Your task to perform on an android device: Show me productivity apps on the Play Store Image 0: 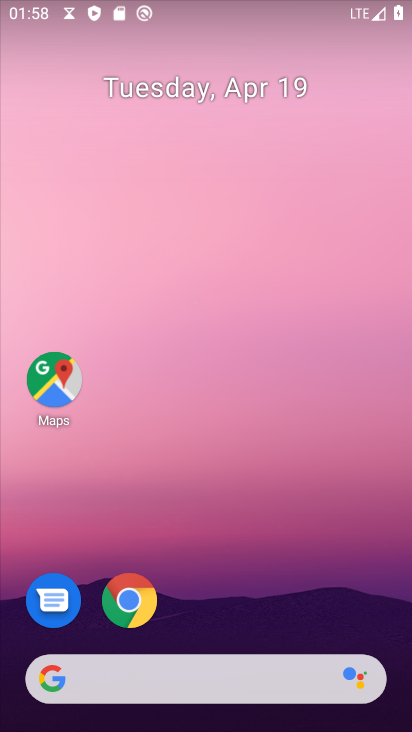
Step 0: drag from (223, 568) to (141, 17)
Your task to perform on an android device: Show me productivity apps on the Play Store Image 1: 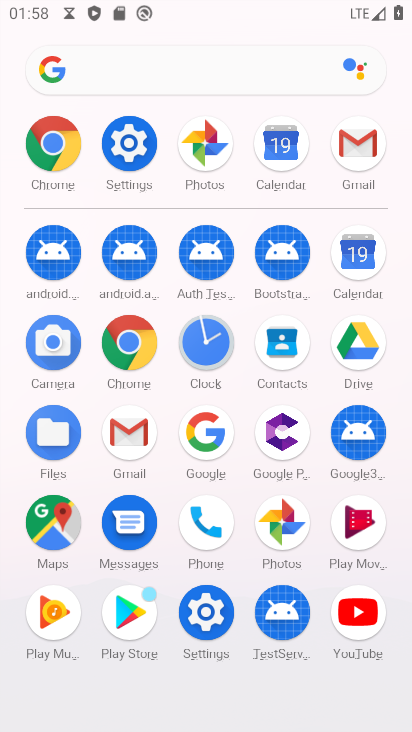
Step 1: click (124, 627)
Your task to perform on an android device: Show me productivity apps on the Play Store Image 2: 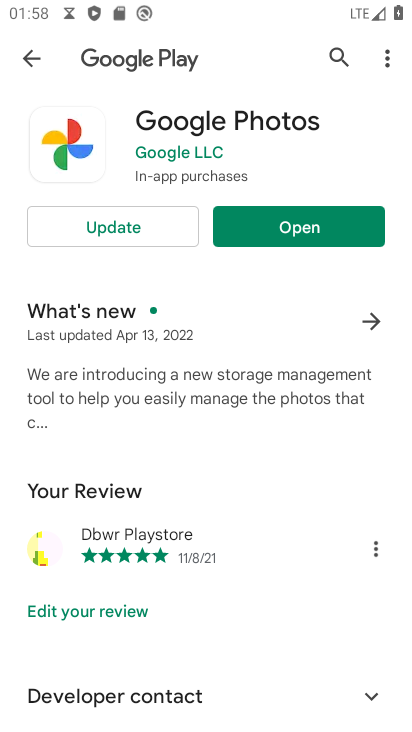
Step 2: click (16, 43)
Your task to perform on an android device: Show me productivity apps on the Play Store Image 3: 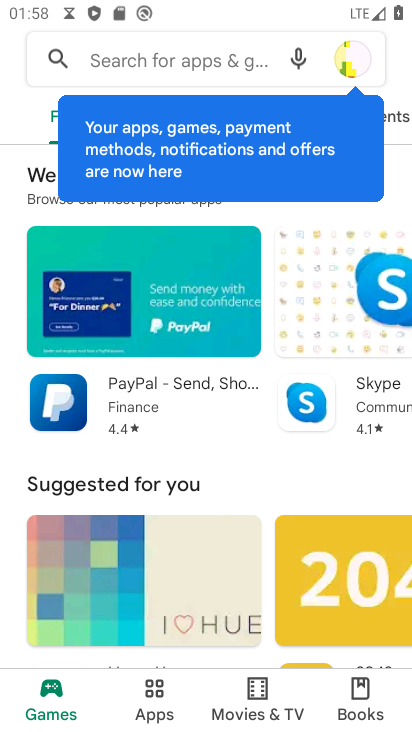
Step 3: drag from (410, 106) to (136, 85)
Your task to perform on an android device: Show me productivity apps on the Play Store Image 4: 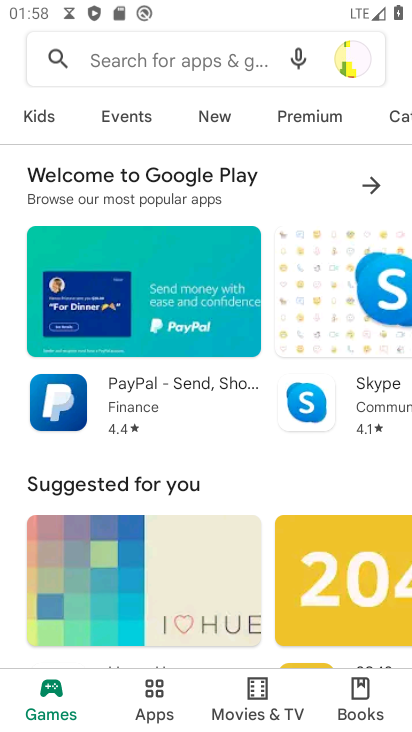
Step 4: drag from (344, 110) to (209, 101)
Your task to perform on an android device: Show me productivity apps on the Play Store Image 5: 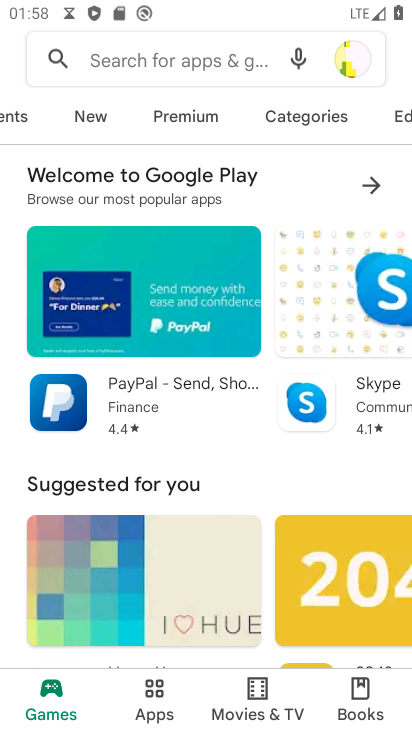
Step 5: click (284, 114)
Your task to perform on an android device: Show me productivity apps on the Play Store Image 6: 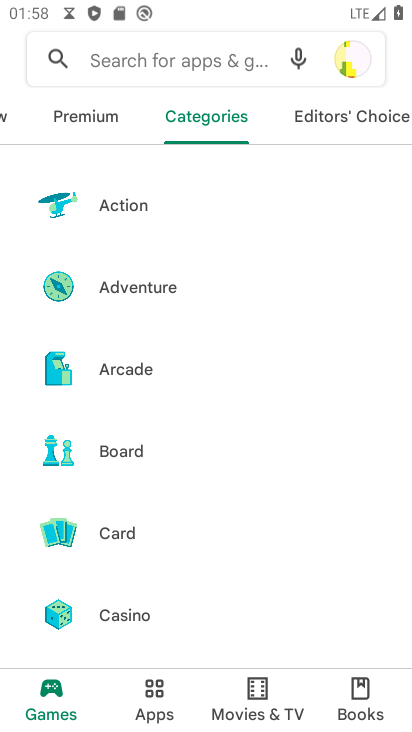
Step 6: drag from (212, 534) to (120, 17)
Your task to perform on an android device: Show me productivity apps on the Play Store Image 7: 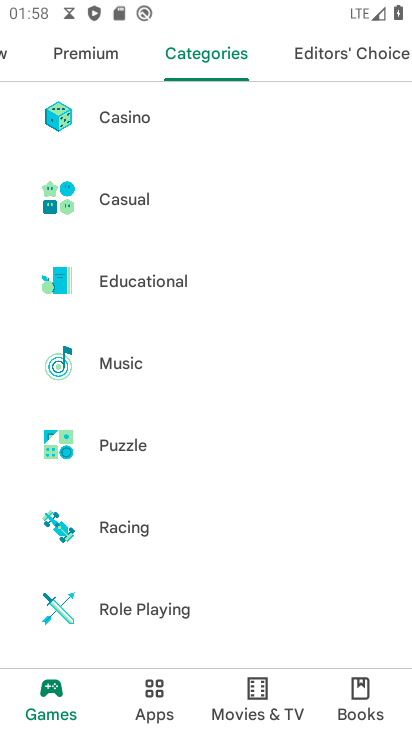
Step 7: drag from (139, 500) to (124, 8)
Your task to perform on an android device: Show me productivity apps on the Play Store Image 8: 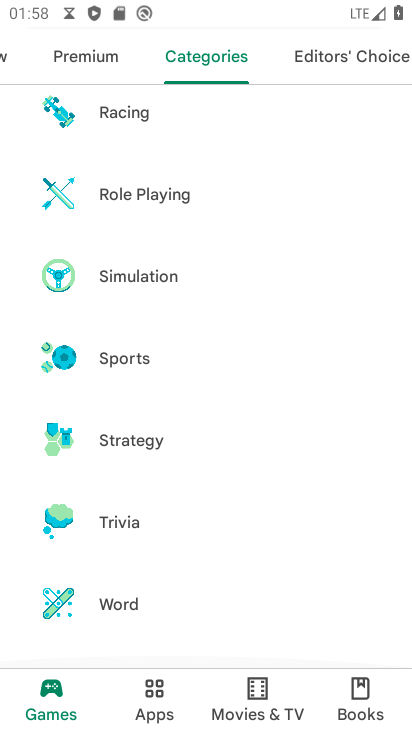
Step 8: drag from (133, 567) to (133, 291)
Your task to perform on an android device: Show me productivity apps on the Play Store Image 9: 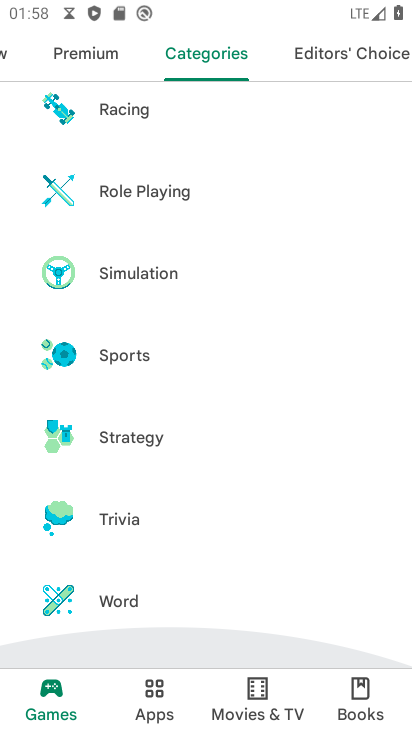
Step 9: drag from (152, 186) to (168, 579)
Your task to perform on an android device: Show me productivity apps on the Play Store Image 10: 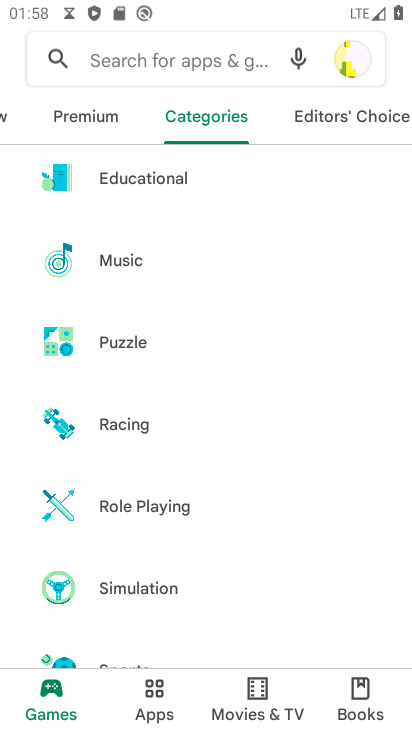
Step 10: drag from (149, 209) to (160, 554)
Your task to perform on an android device: Show me productivity apps on the Play Store Image 11: 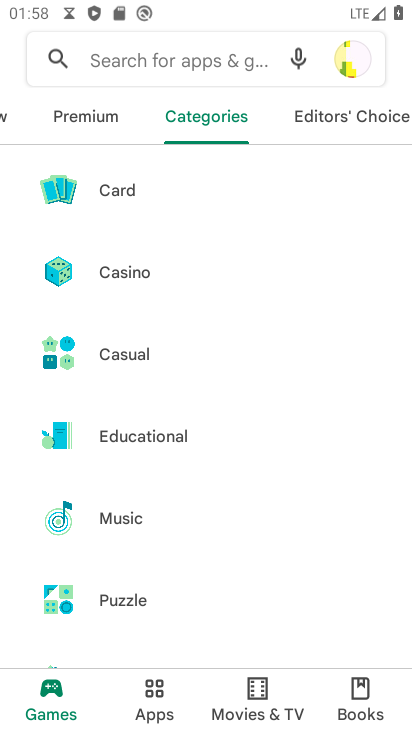
Step 11: drag from (158, 210) to (150, 555)
Your task to perform on an android device: Show me productivity apps on the Play Store Image 12: 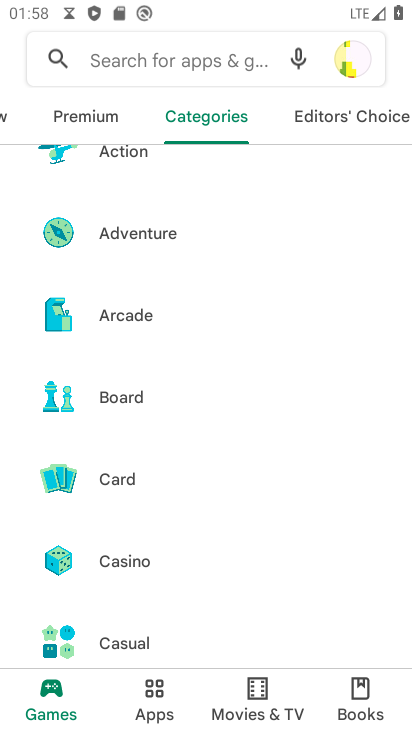
Step 12: drag from (149, 188) to (150, 543)
Your task to perform on an android device: Show me productivity apps on the Play Store Image 13: 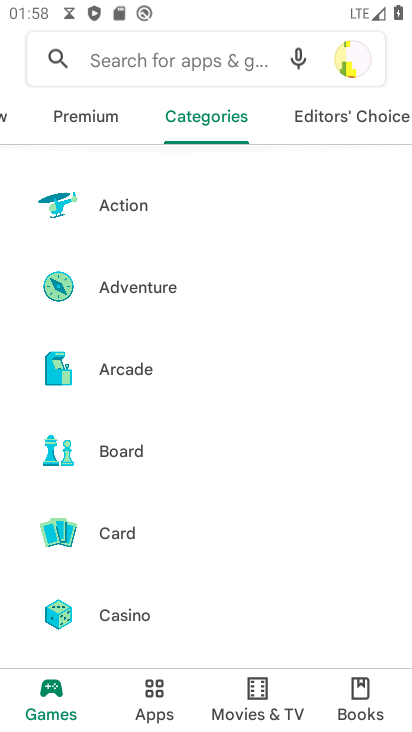
Step 13: drag from (161, 248) to (147, 477)
Your task to perform on an android device: Show me productivity apps on the Play Store Image 14: 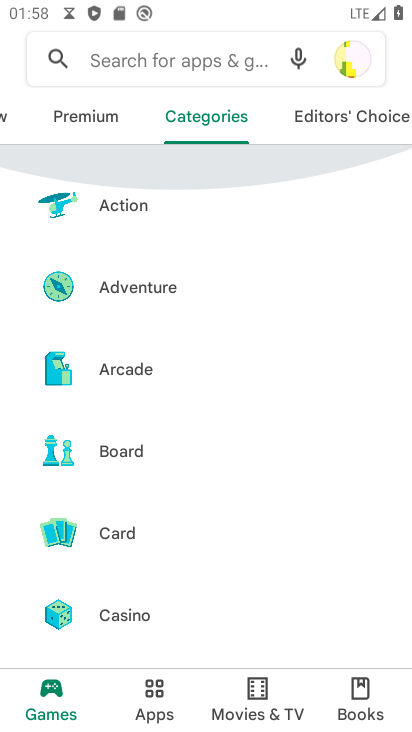
Step 14: drag from (146, 533) to (140, 245)
Your task to perform on an android device: Show me productivity apps on the Play Store Image 15: 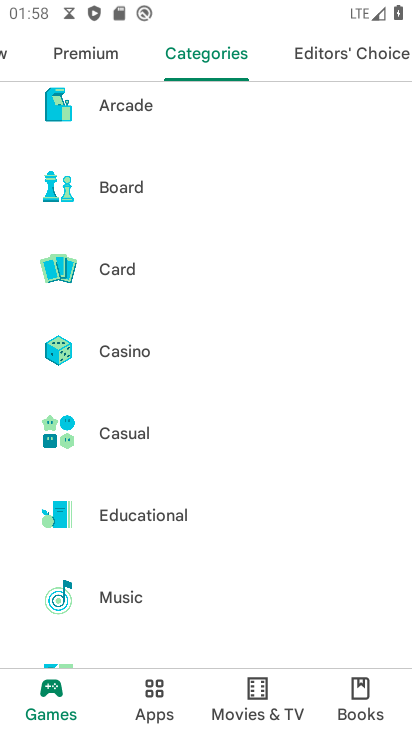
Step 15: click (140, 699)
Your task to perform on an android device: Show me productivity apps on the Play Store Image 16: 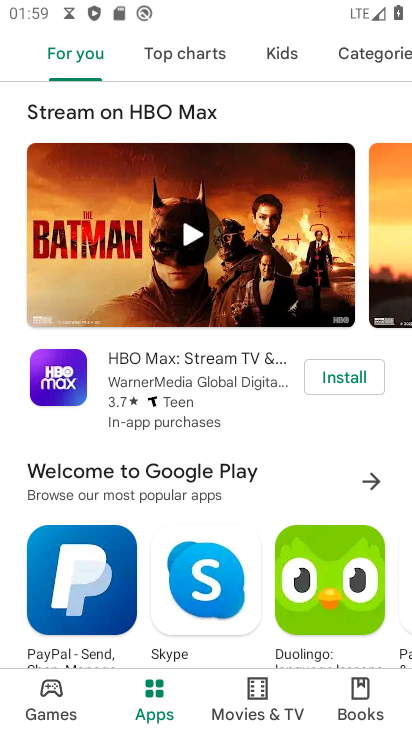
Step 16: click (367, 45)
Your task to perform on an android device: Show me productivity apps on the Play Store Image 17: 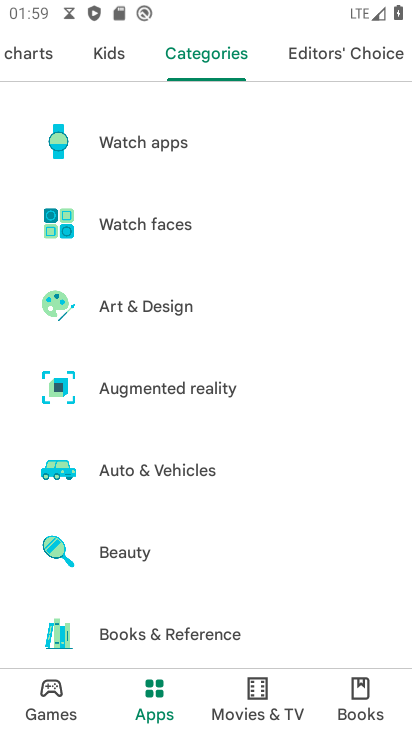
Step 17: drag from (235, 531) to (189, 34)
Your task to perform on an android device: Show me productivity apps on the Play Store Image 18: 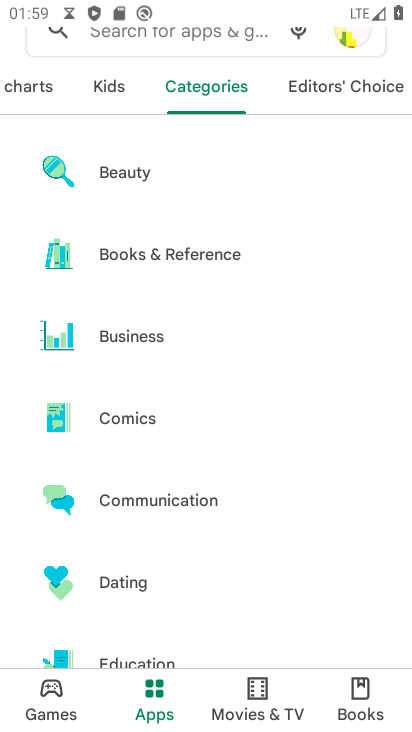
Step 18: drag from (154, 604) to (157, 75)
Your task to perform on an android device: Show me productivity apps on the Play Store Image 19: 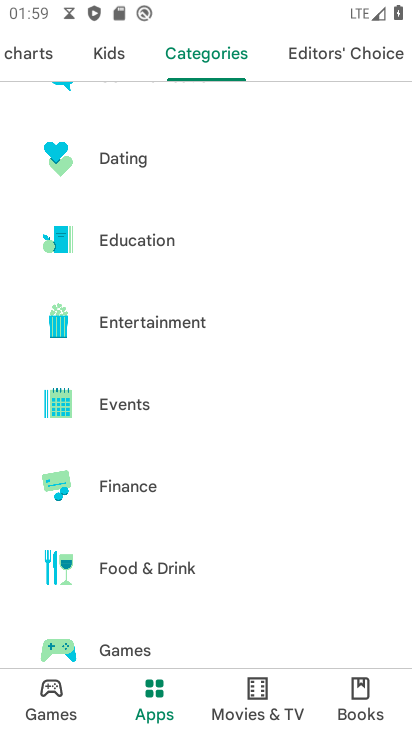
Step 19: drag from (170, 592) to (155, 86)
Your task to perform on an android device: Show me productivity apps on the Play Store Image 20: 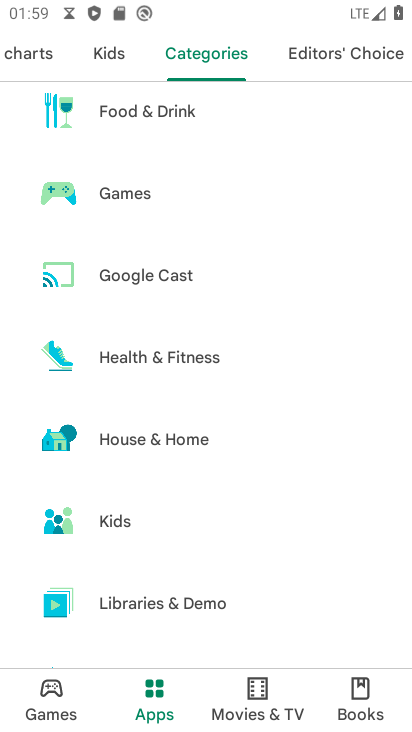
Step 20: drag from (152, 606) to (135, 60)
Your task to perform on an android device: Show me productivity apps on the Play Store Image 21: 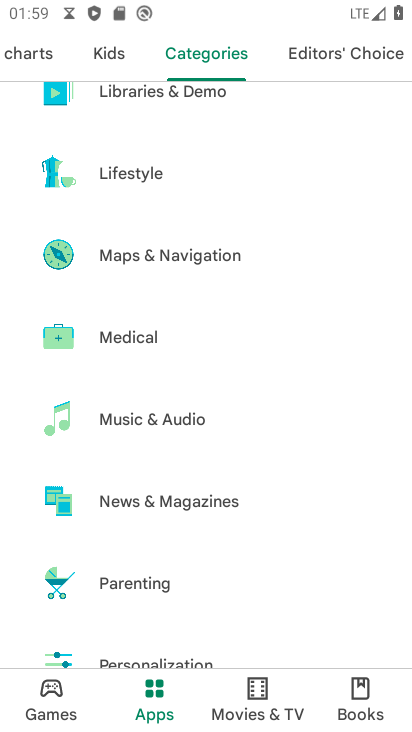
Step 21: drag from (122, 549) to (89, 40)
Your task to perform on an android device: Show me productivity apps on the Play Store Image 22: 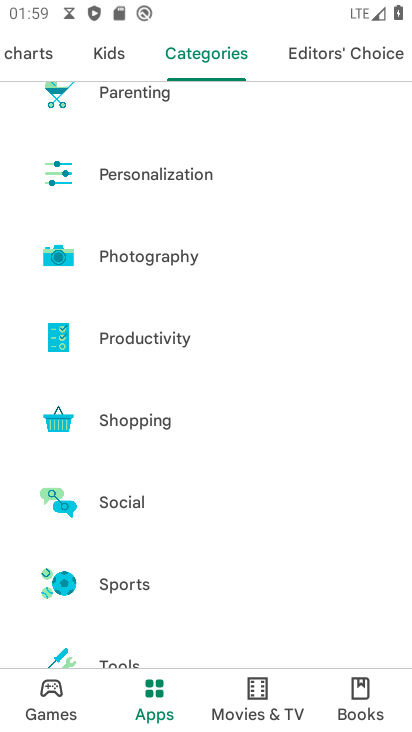
Step 22: click (146, 343)
Your task to perform on an android device: Show me productivity apps on the Play Store Image 23: 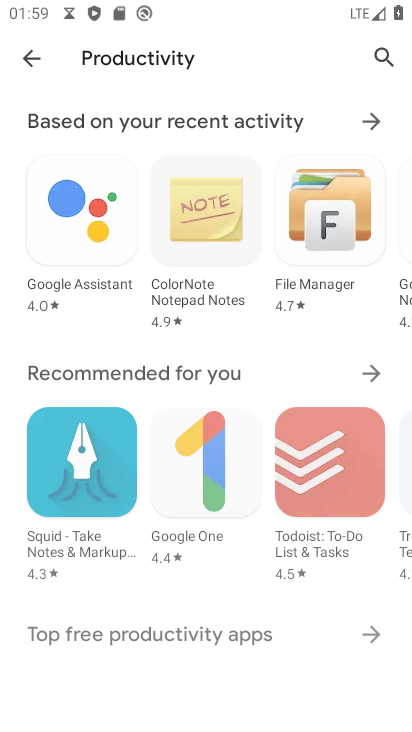
Step 23: task complete